Your task to perform on an android device: Open Google Chrome and open the bookmarks view Image 0: 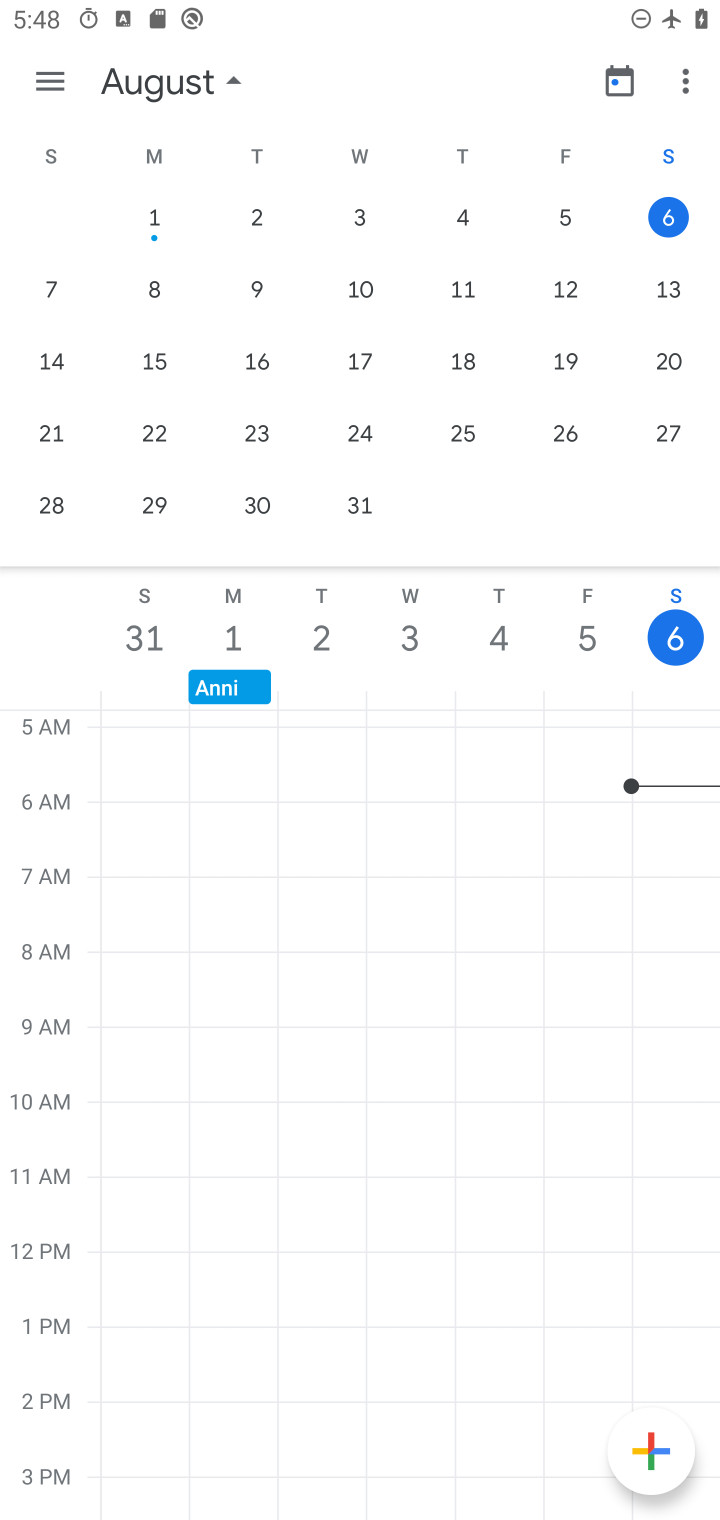
Step 0: press home button
Your task to perform on an android device: Open Google Chrome and open the bookmarks view Image 1: 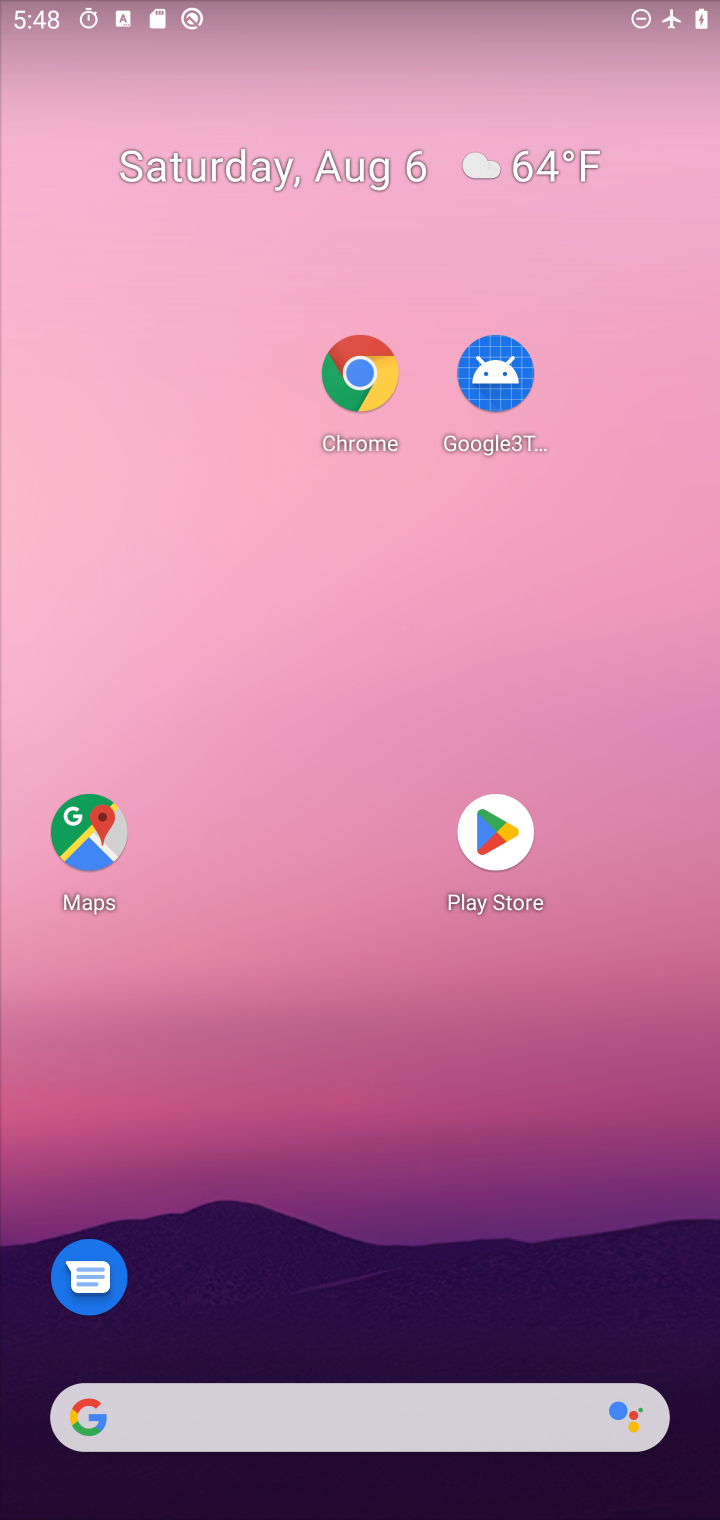
Step 1: drag from (493, 1419) to (456, 826)
Your task to perform on an android device: Open Google Chrome and open the bookmarks view Image 2: 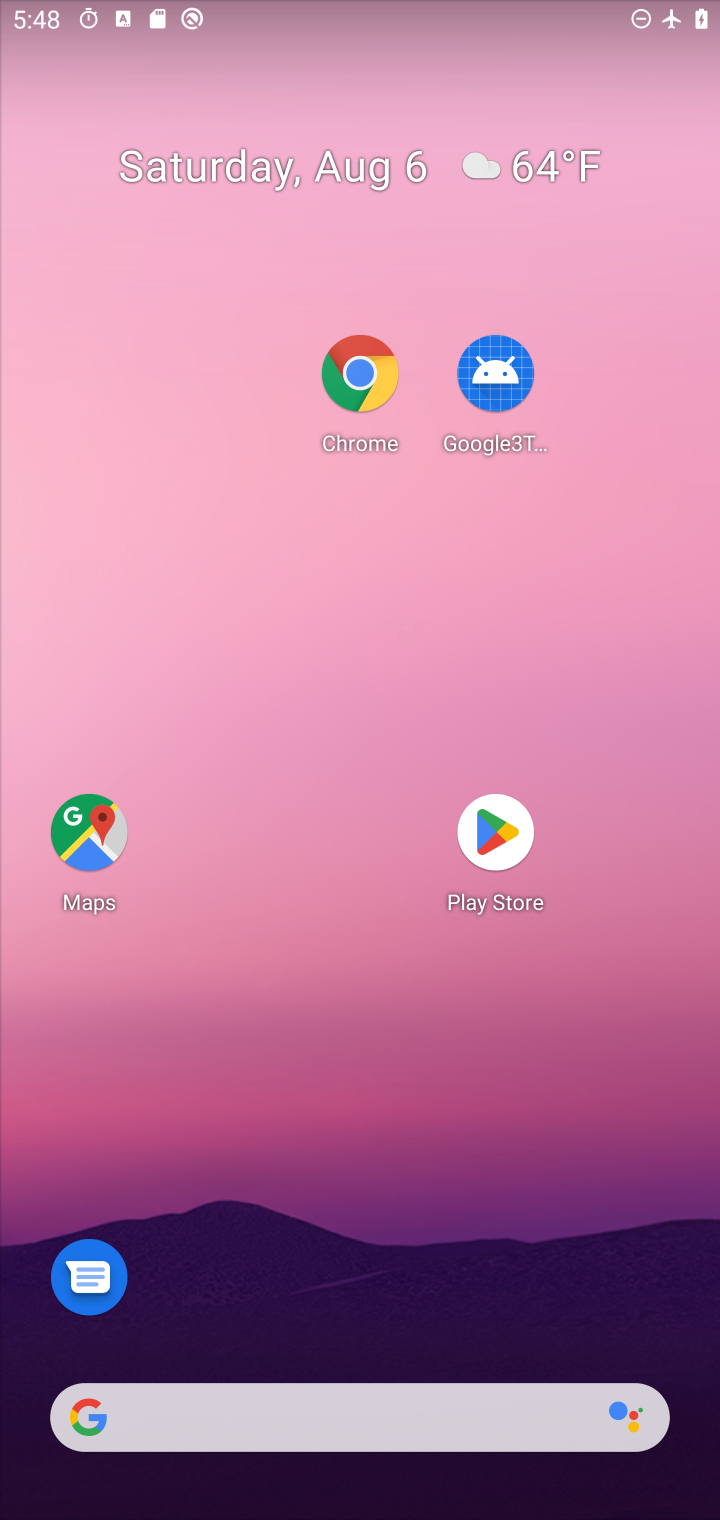
Step 2: drag from (308, 1425) to (375, 104)
Your task to perform on an android device: Open Google Chrome and open the bookmarks view Image 3: 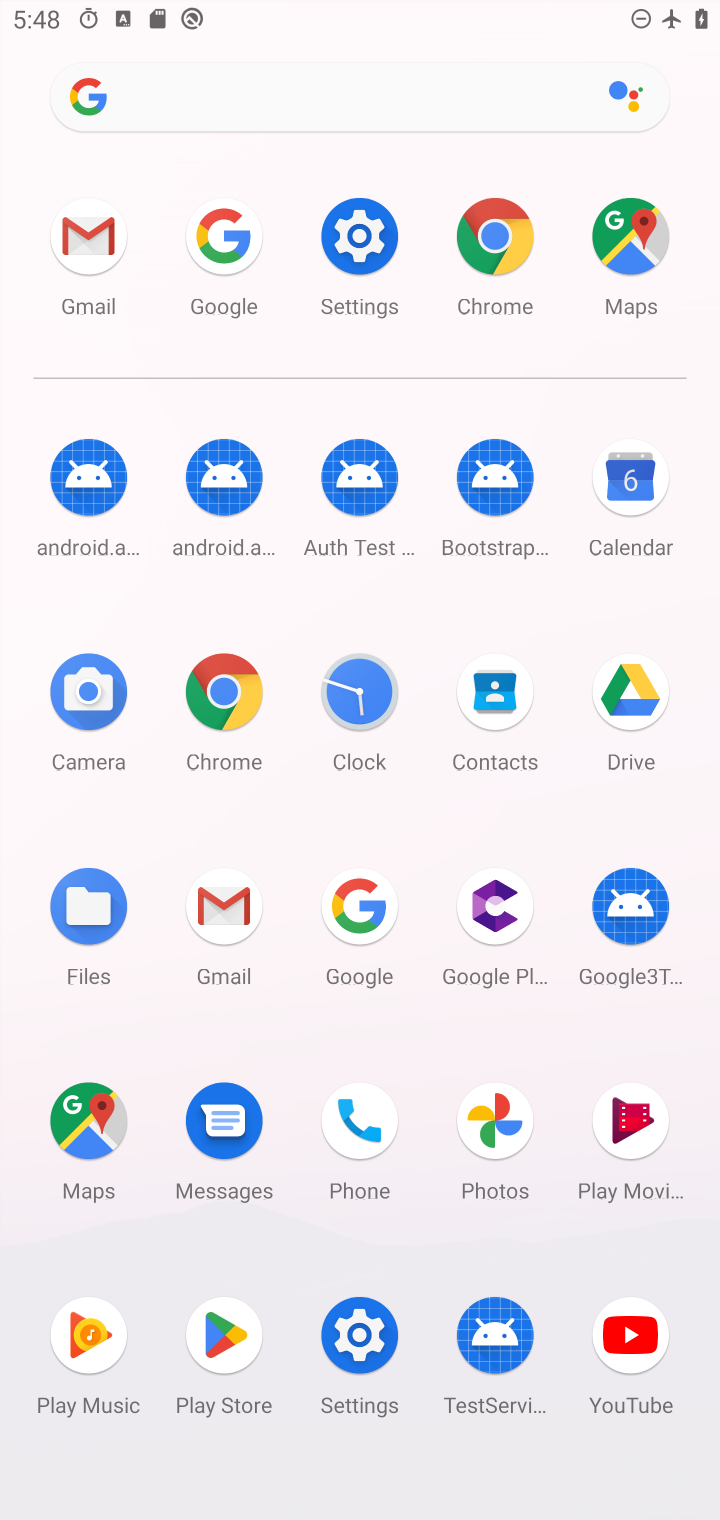
Step 3: click (232, 683)
Your task to perform on an android device: Open Google Chrome and open the bookmarks view Image 4: 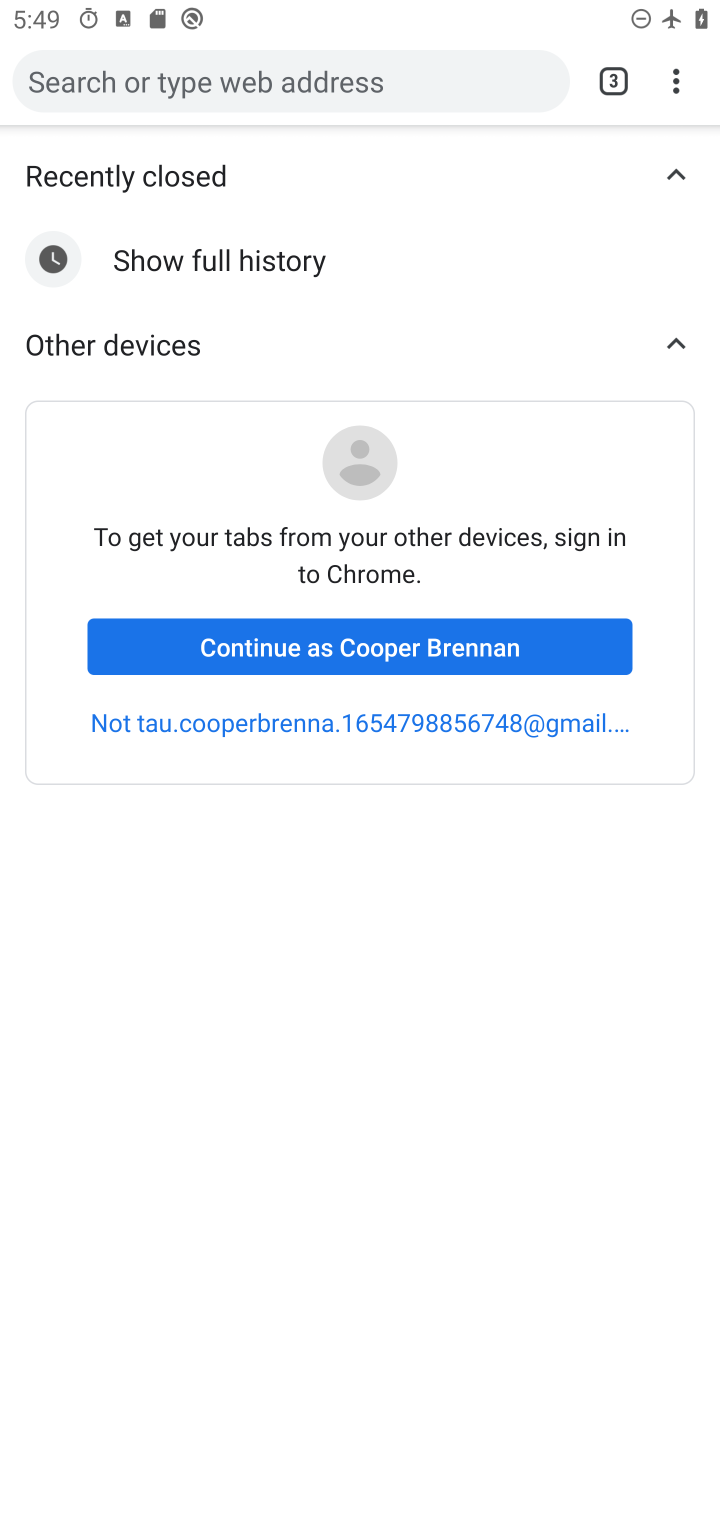
Step 4: click (664, 79)
Your task to perform on an android device: Open Google Chrome and open the bookmarks view Image 5: 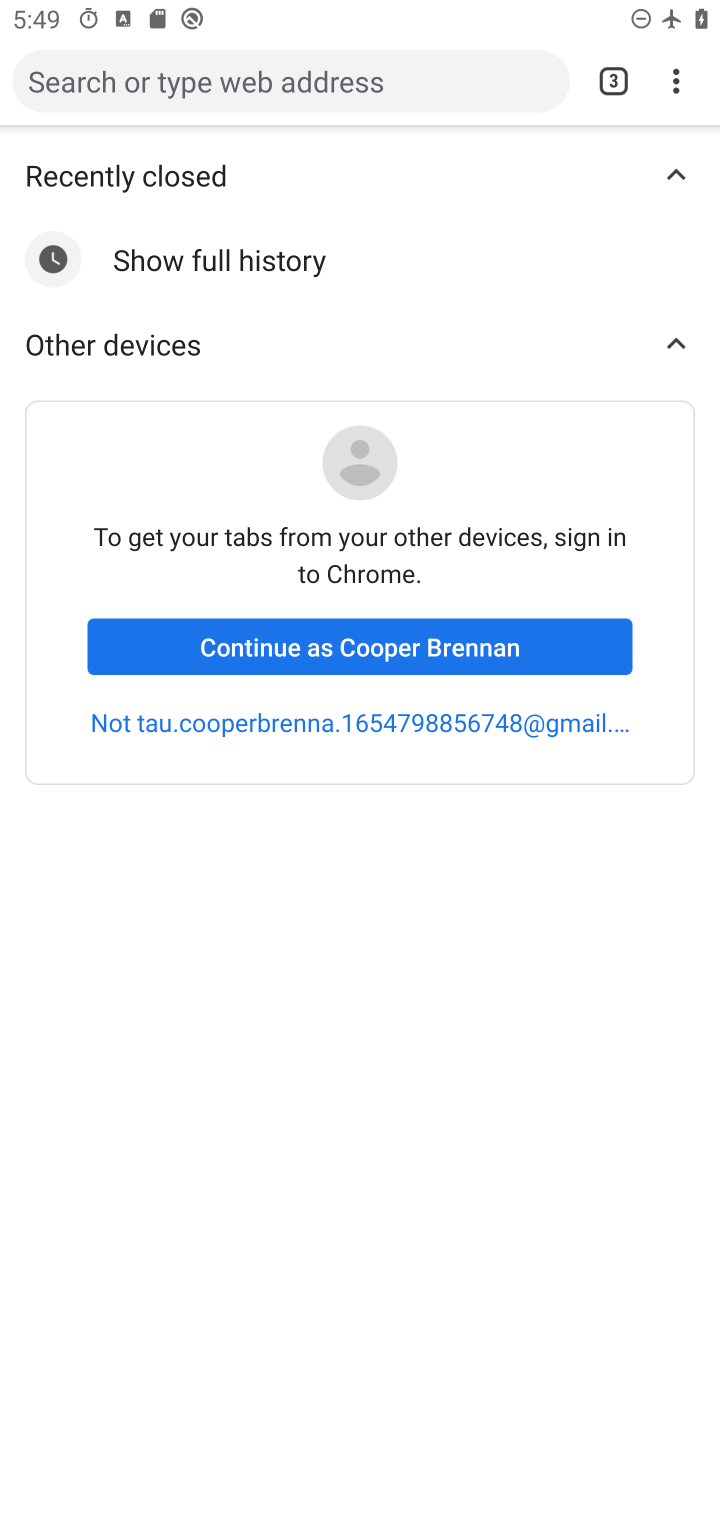
Step 5: drag from (673, 82) to (493, 305)
Your task to perform on an android device: Open Google Chrome and open the bookmarks view Image 6: 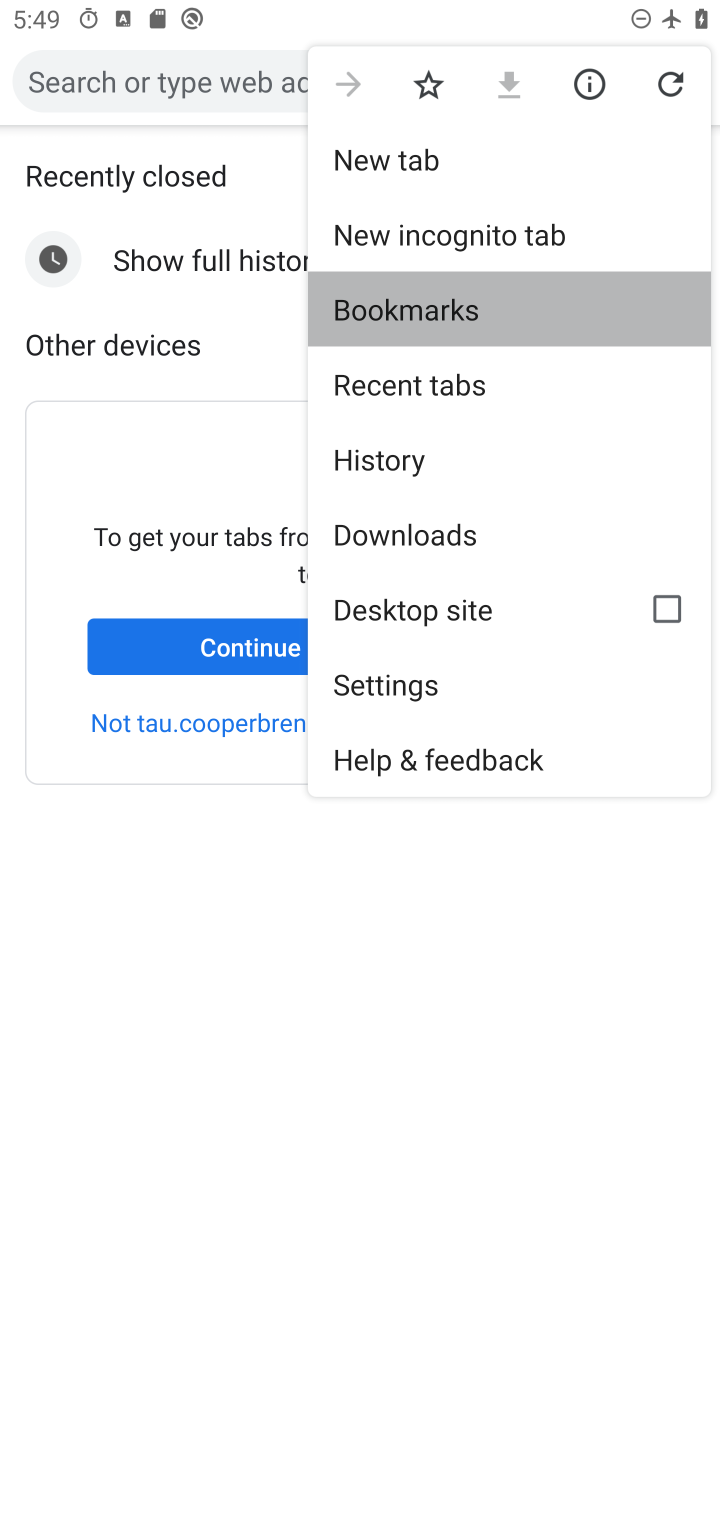
Step 6: click (493, 305)
Your task to perform on an android device: Open Google Chrome and open the bookmarks view Image 7: 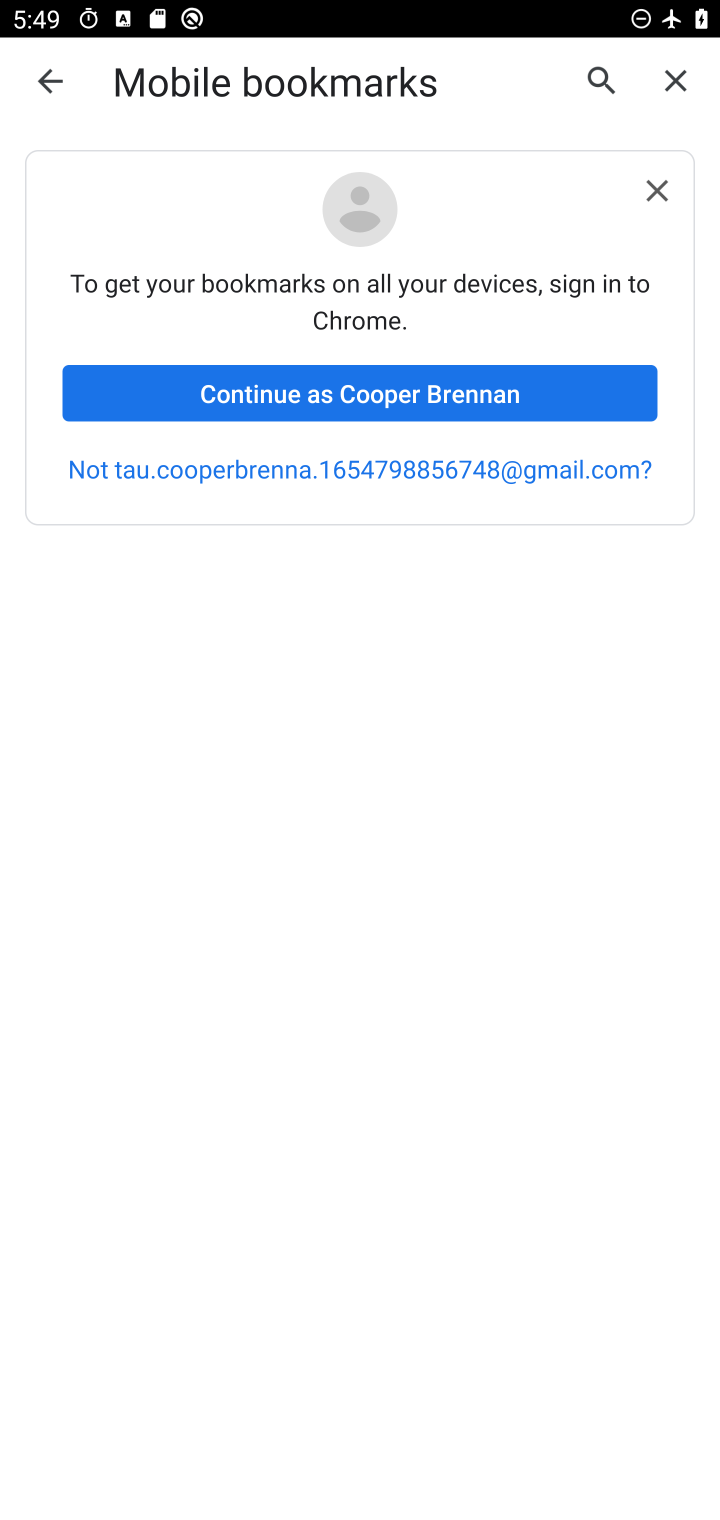
Step 7: task complete